Your task to perform on an android device: open a bookmark in the chrome app Image 0: 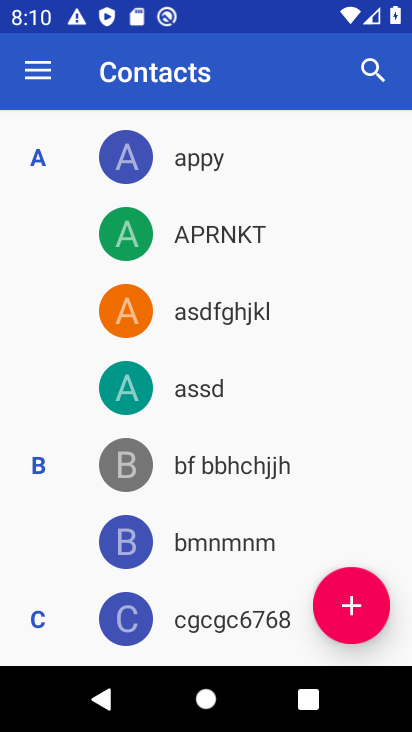
Step 0: press home button
Your task to perform on an android device: open a bookmark in the chrome app Image 1: 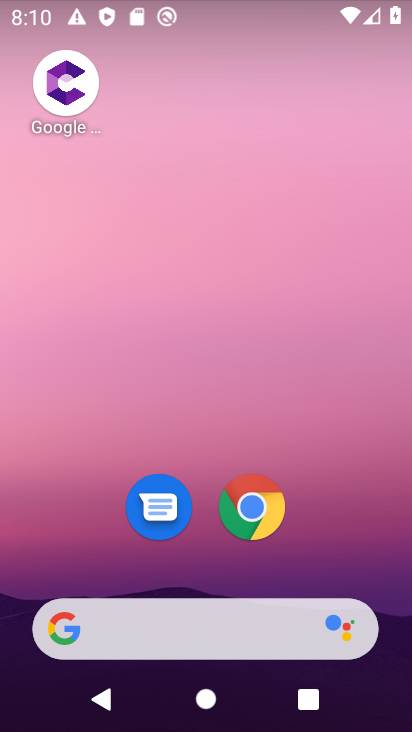
Step 1: click (252, 507)
Your task to perform on an android device: open a bookmark in the chrome app Image 2: 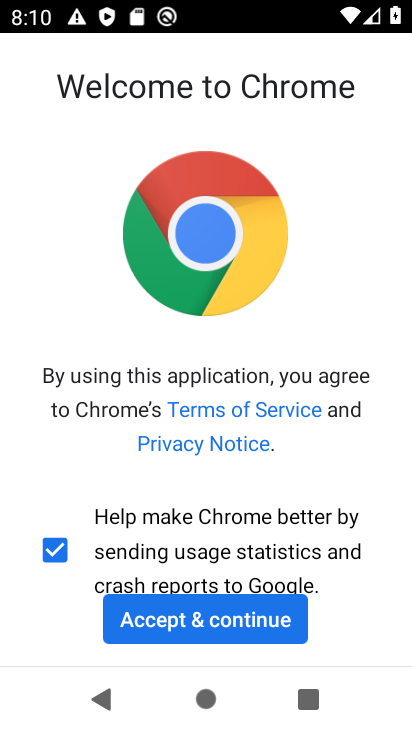
Step 2: click (227, 616)
Your task to perform on an android device: open a bookmark in the chrome app Image 3: 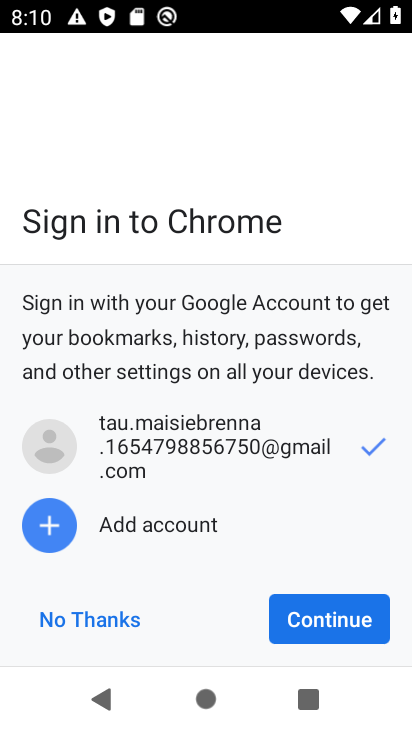
Step 3: click (333, 620)
Your task to perform on an android device: open a bookmark in the chrome app Image 4: 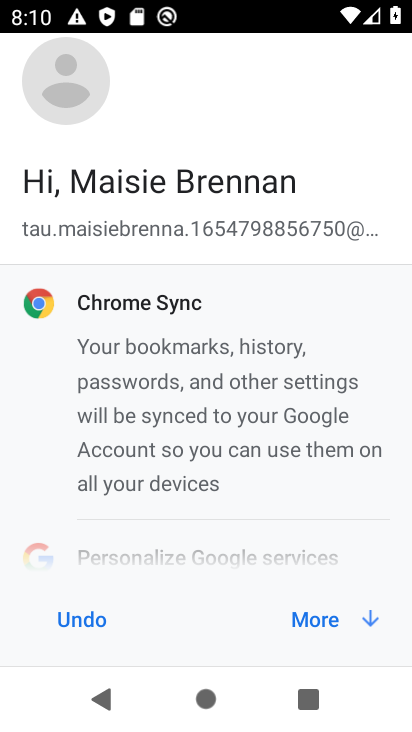
Step 4: click (333, 621)
Your task to perform on an android device: open a bookmark in the chrome app Image 5: 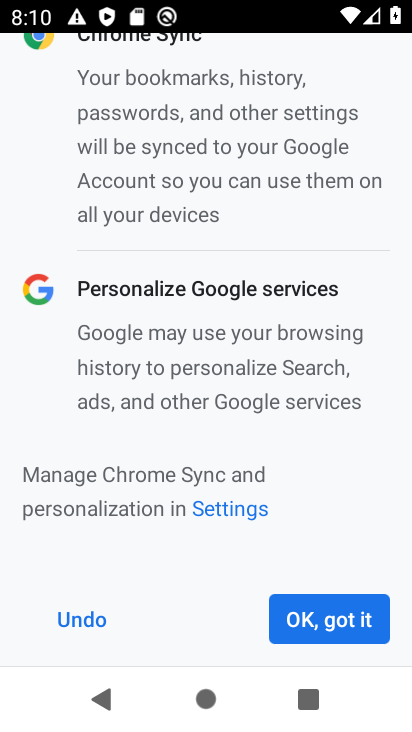
Step 5: click (323, 621)
Your task to perform on an android device: open a bookmark in the chrome app Image 6: 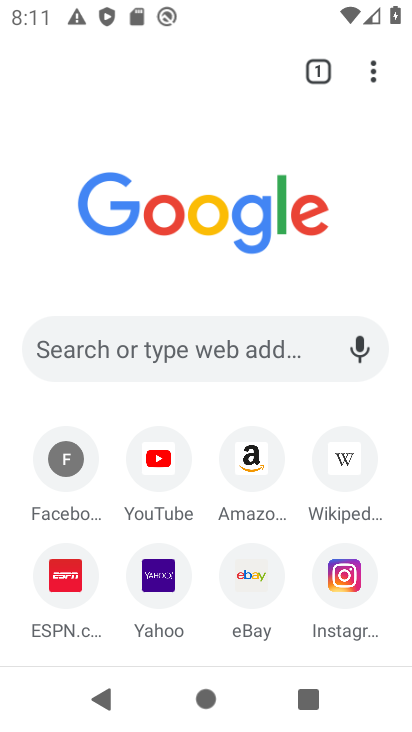
Step 6: click (373, 88)
Your task to perform on an android device: open a bookmark in the chrome app Image 7: 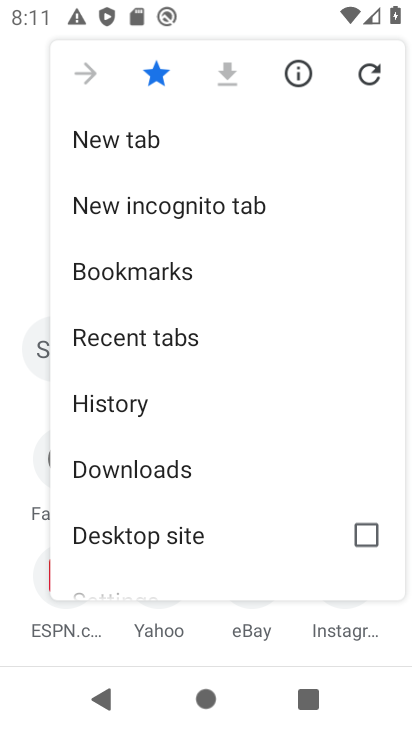
Step 7: click (182, 272)
Your task to perform on an android device: open a bookmark in the chrome app Image 8: 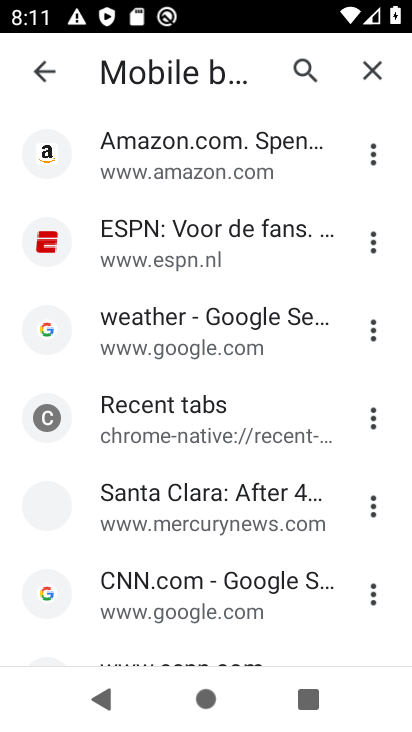
Step 8: task complete